Your task to perform on an android device: Open calendar and show me the second week of next month Image 0: 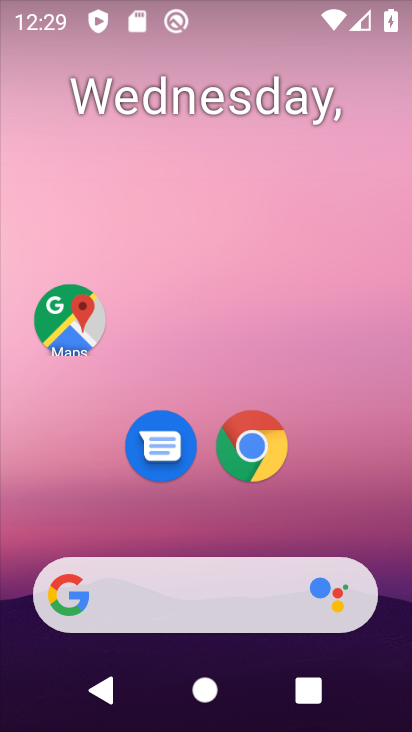
Step 0: drag from (332, 676) to (213, 192)
Your task to perform on an android device: Open calendar and show me the second week of next month Image 1: 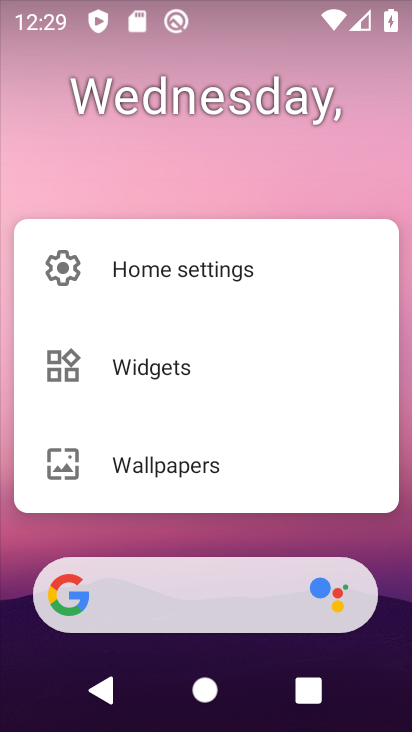
Step 1: click (262, 175)
Your task to perform on an android device: Open calendar and show me the second week of next month Image 2: 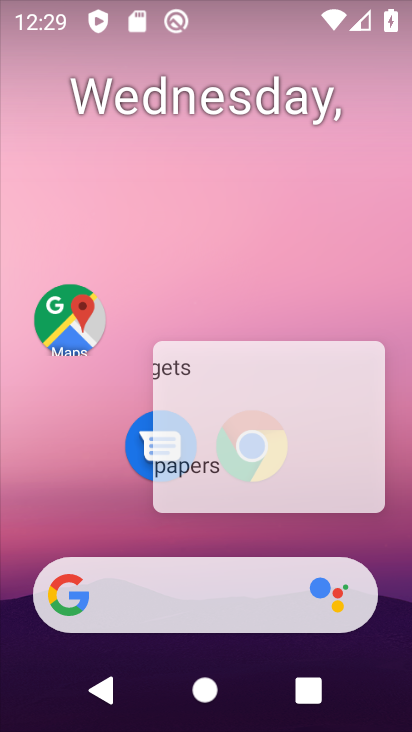
Step 2: click (262, 175)
Your task to perform on an android device: Open calendar and show me the second week of next month Image 3: 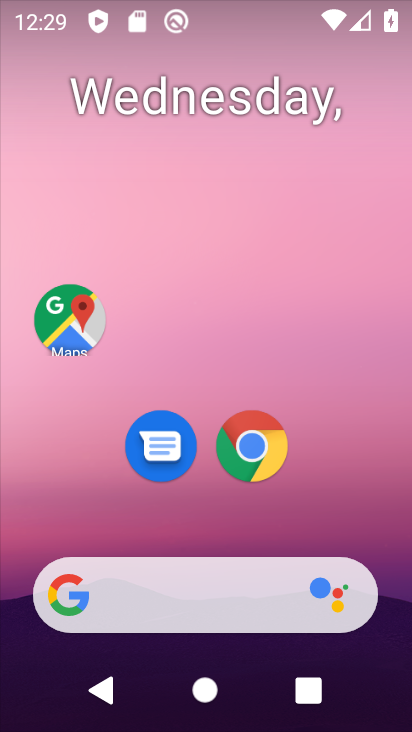
Step 3: drag from (385, 696) to (207, 202)
Your task to perform on an android device: Open calendar and show me the second week of next month Image 4: 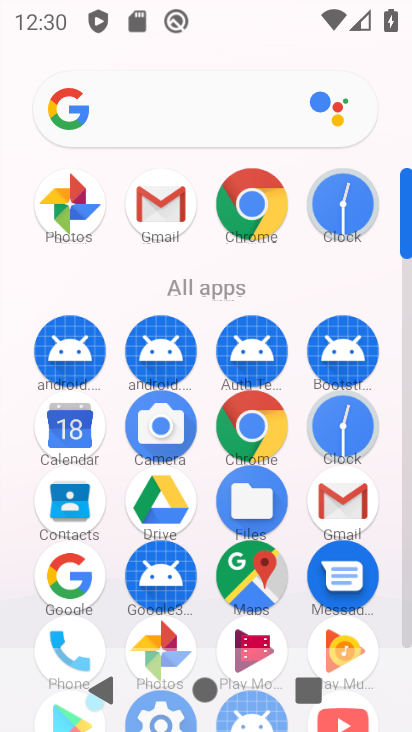
Step 4: click (76, 428)
Your task to perform on an android device: Open calendar and show me the second week of next month Image 5: 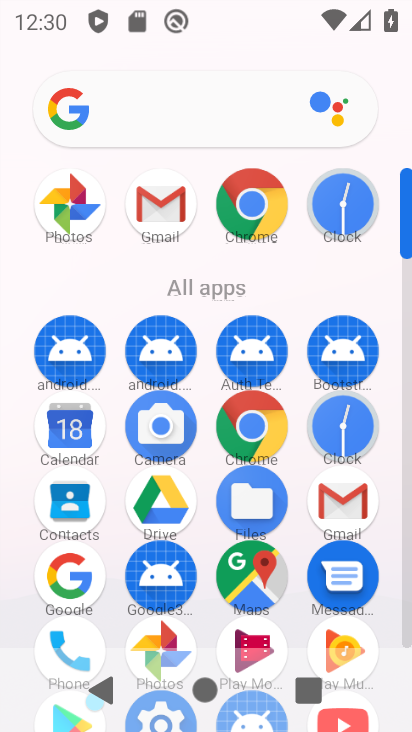
Step 5: click (76, 428)
Your task to perform on an android device: Open calendar and show me the second week of next month Image 6: 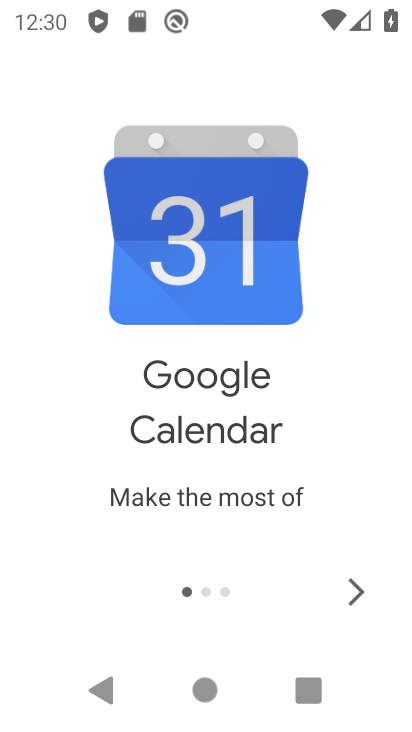
Step 6: click (350, 592)
Your task to perform on an android device: Open calendar and show me the second week of next month Image 7: 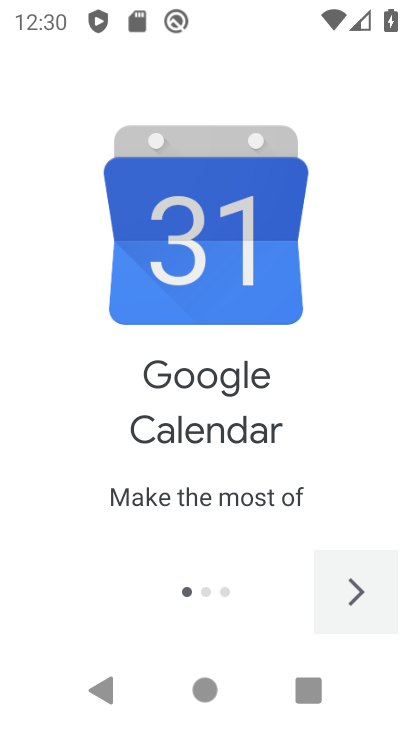
Step 7: click (350, 592)
Your task to perform on an android device: Open calendar and show me the second week of next month Image 8: 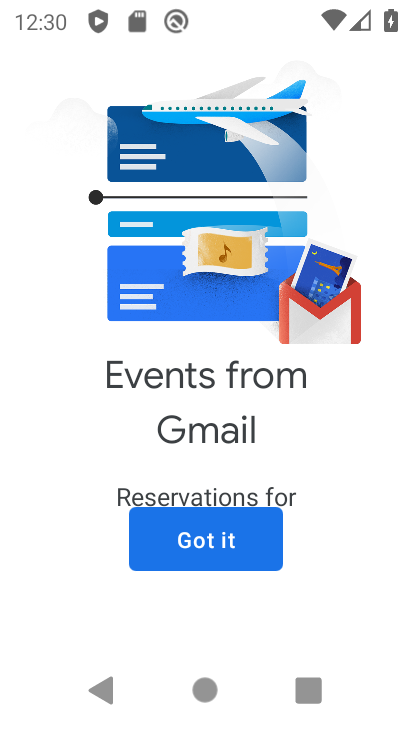
Step 8: click (229, 535)
Your task to perform on an android device: Open calendar and show me the second week of next month Image 9: 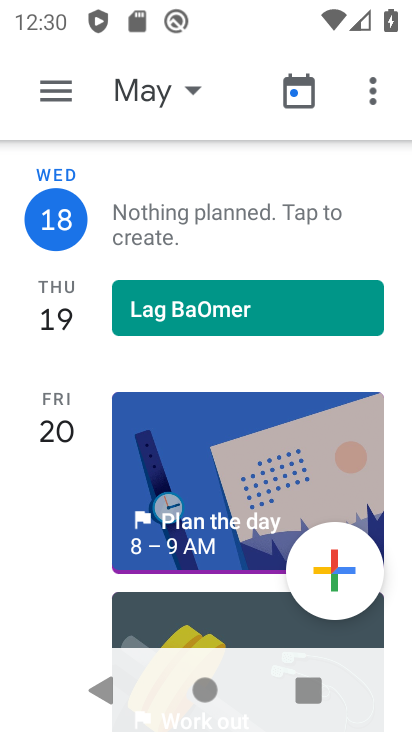
Step 9: click (186, 90)
Your task to perform on an android device: Open calendar and show me the second week of next month Image 10: 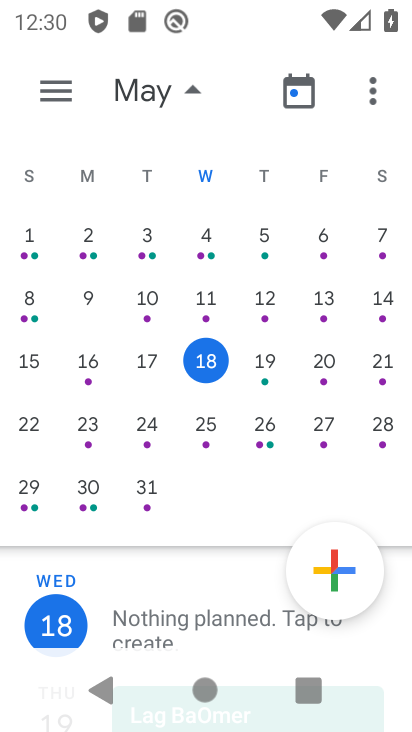
Step 10: click (187, 88)
Your task to perform on an android device: Open calendar and show me the second week of next month Image 11: 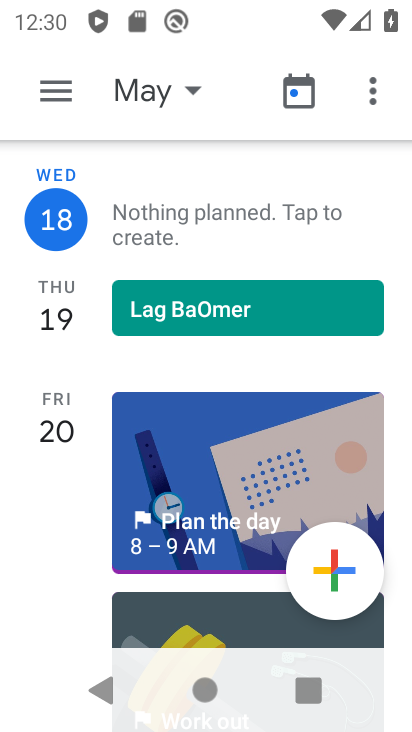
Step 11: click (194, 89)
Your task to perform on an android device: Open calendar and show me the second week of next month Image 12: 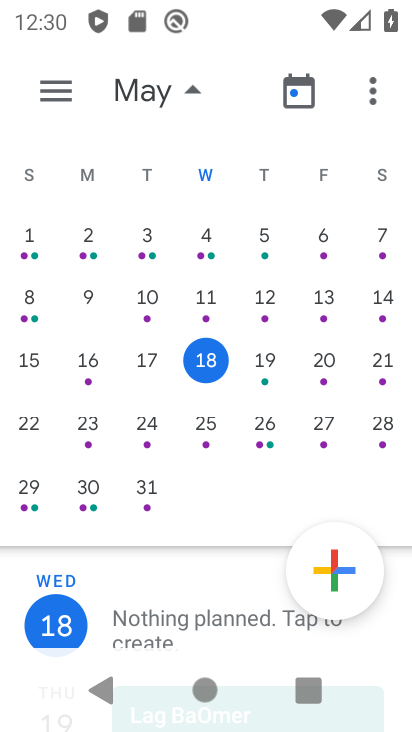
Step 12: drag from (295, 350) to (10, 430)
Your task to perform on an android device: Open calendar and show me the second week of next month Image 13: 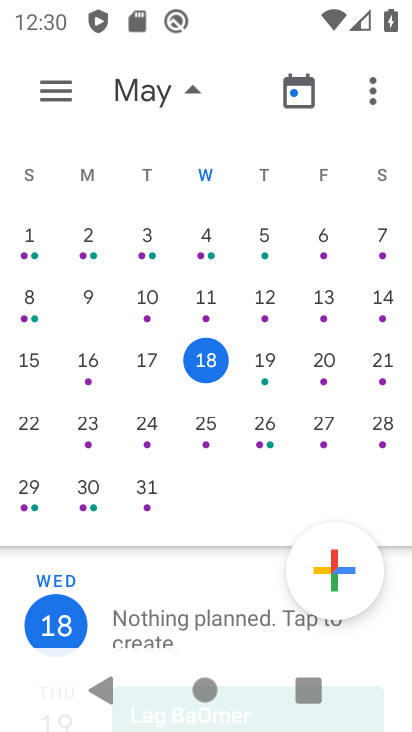
Step 13: drag from (308, 349) to (16, 474)
Your task to perform on an android device: Open calendar and show me the second week of next month Image 14: 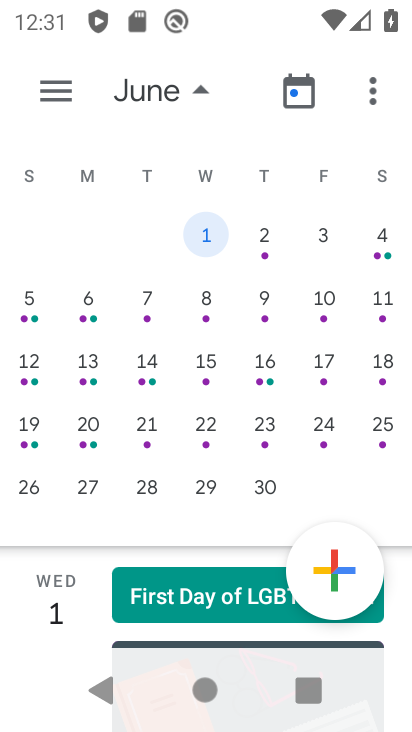
Step 14: drag from (303, 330) to (88, 403)
Your task to perform on an android device: Open calendar and show me the second week of next month Image 15: 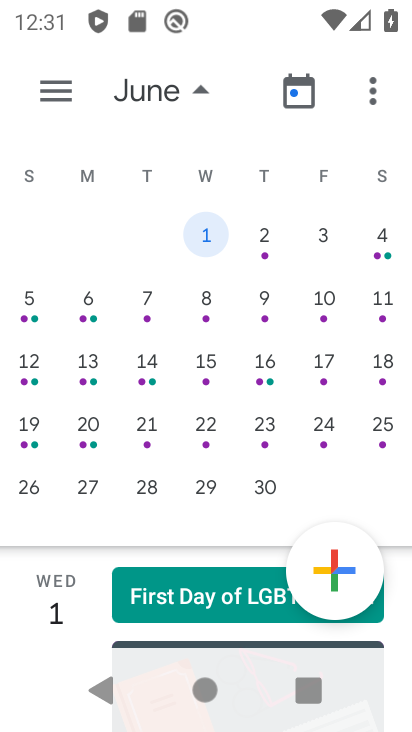
Step 15: click (200, 299)
Your task to perform on an android device: Open calendar and show me the second week of next month Image 16: 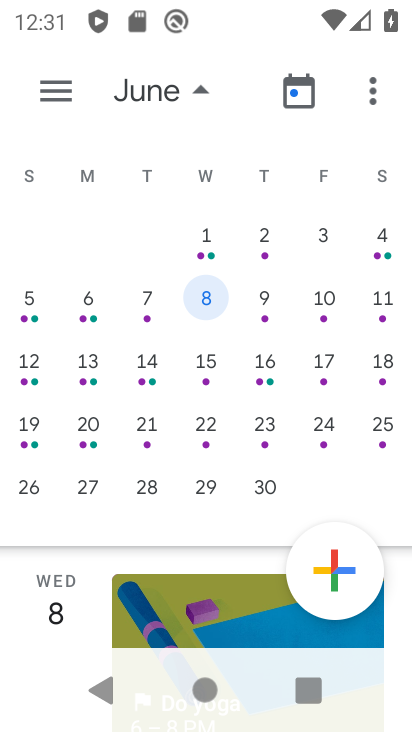
Step 16: click (199, 301)
Your task to perform on an android device: Open calendar and show me the second week of next month Image 17: 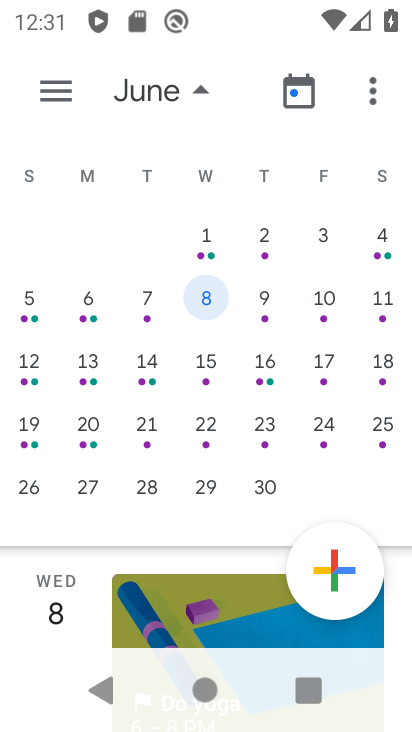
Step 17: click (199, 299)
Your task to perform on an android device: Open calendar and show me the second week of next month Image 18: 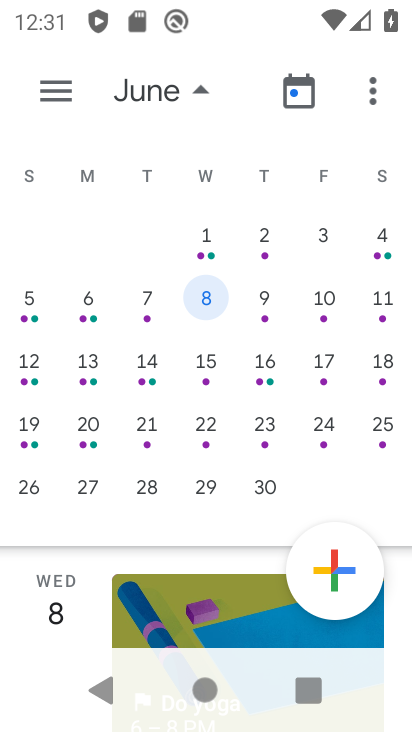
Step 18: task complete